Your task to perform on an android device: Open the calendar app, open the side menu, and click the "Day" option Image 0: 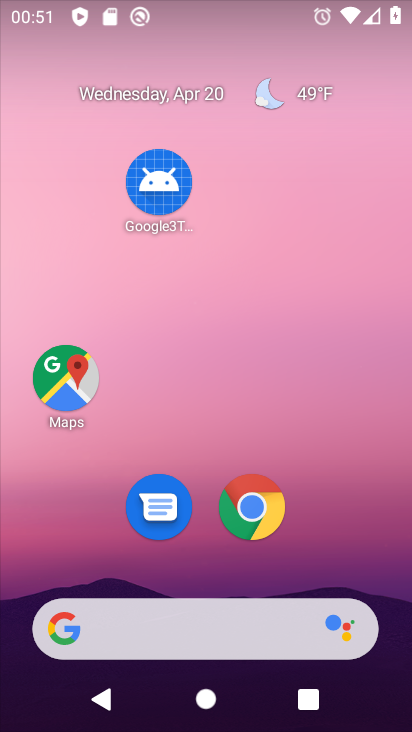
Step 0: drag from (186, 505) to (72, 45)
Your task to perform on an android device: Open the calendar app, open the side menu, and click the "Day" option Image 1: 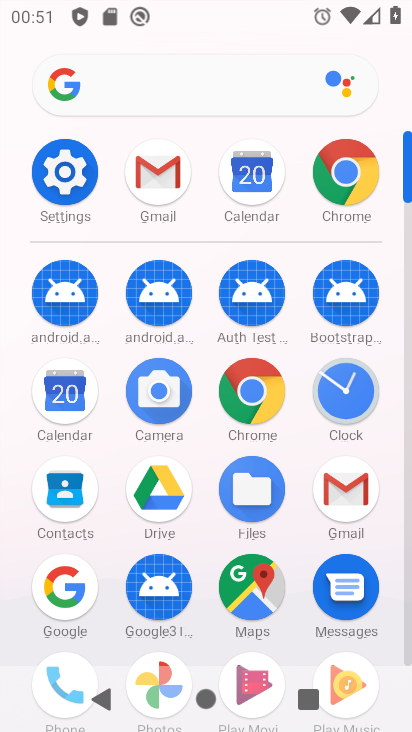
Step 1: click (64, 394)
Your task to perform on an android device: Open the calendar app, open the side menu, and click the "Day" option Image 2: 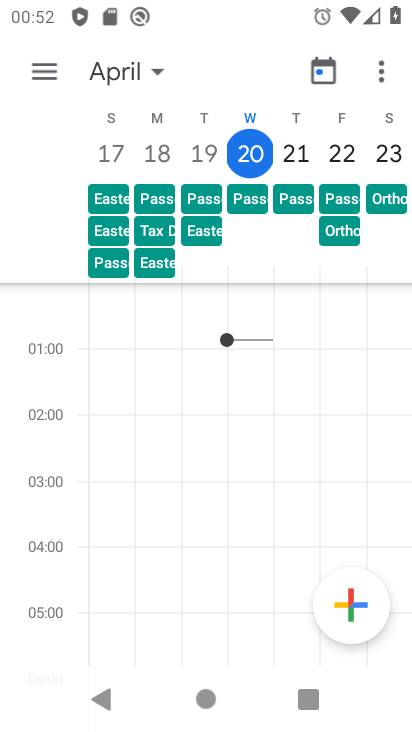
Step 2: click (45, 68)
Your task to perform on an android device: Open the calendar app, open the side menu, and click the "Day" option Image 3: 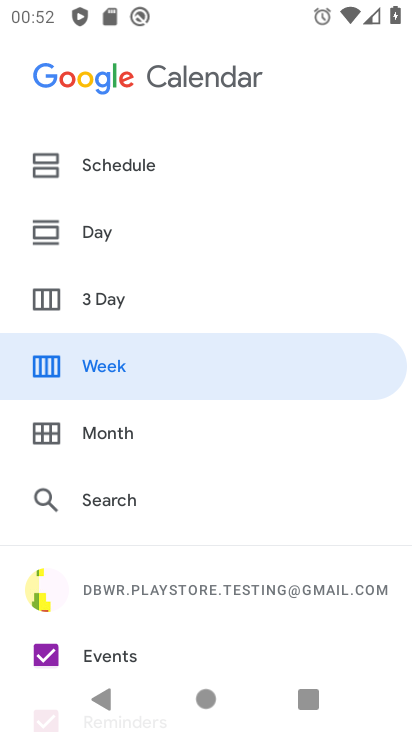
Step 3: click (95, 227)
Your task to perform on an android device: Open the calendar app, open the side menu, and click the "Day" option Image 4: 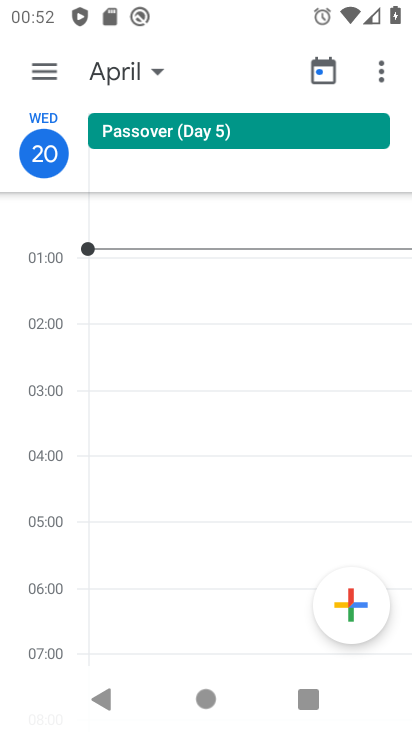
Step 4: task complete